Your task to perform on an android device: Search for "usb-c to usb-b" on bestbuy, select the first entry, and add it to the cart. Image 0: 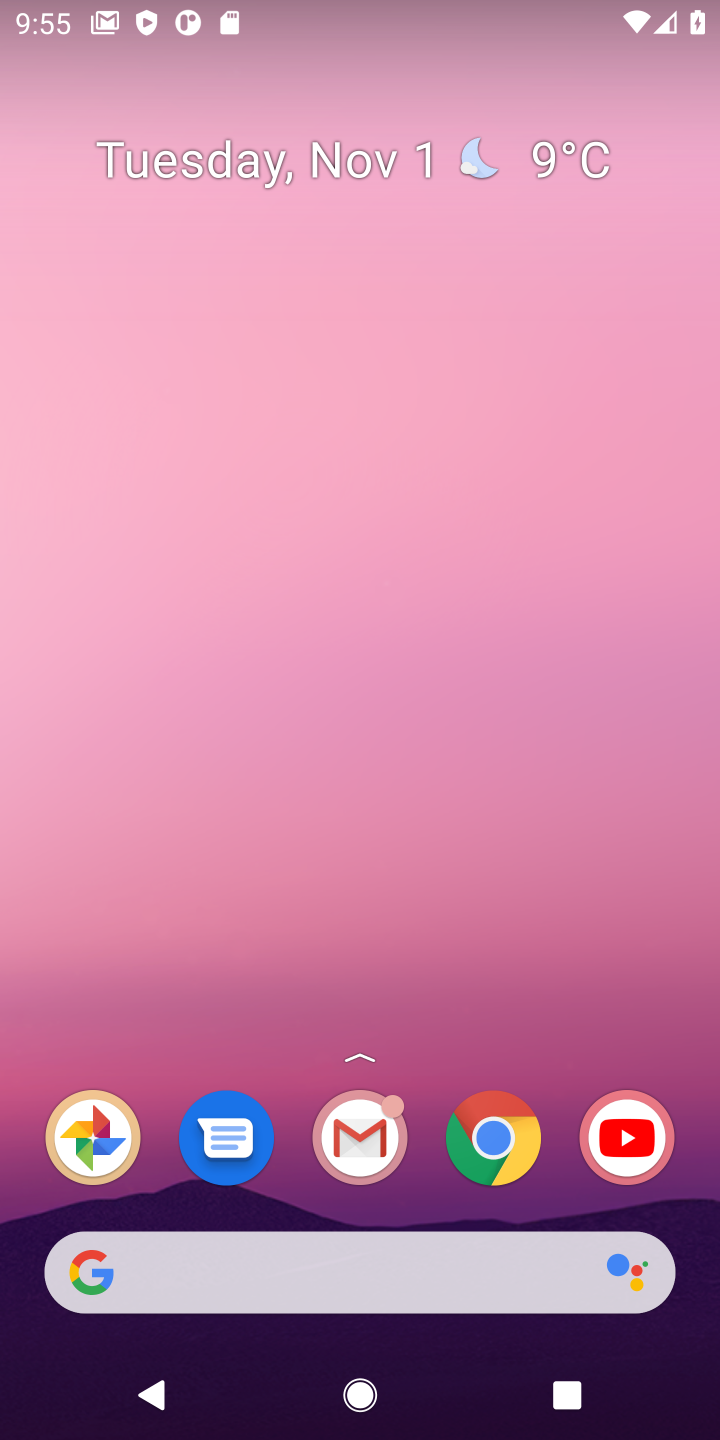
Step 0: click (487, 1111)
Your task to perform on an android device: Search for "usb-c to usb-b" on bestbuy, select the first entry, and add it to the cart. Image 1: 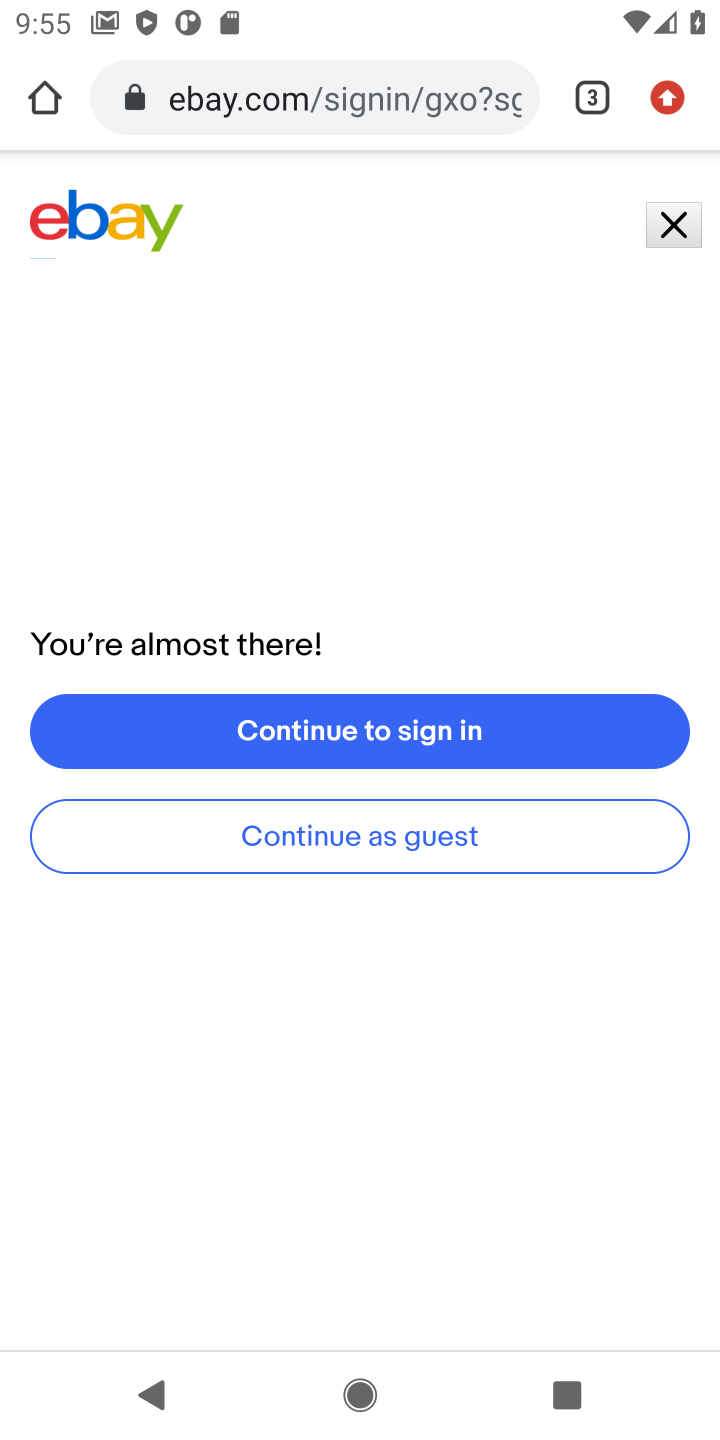
Step 1: click (589, 101)
Your task to perform on an android device: Search for "usb-c to usb-b" on bestbuy, select the first entry, and add it to the cart. Image 2: 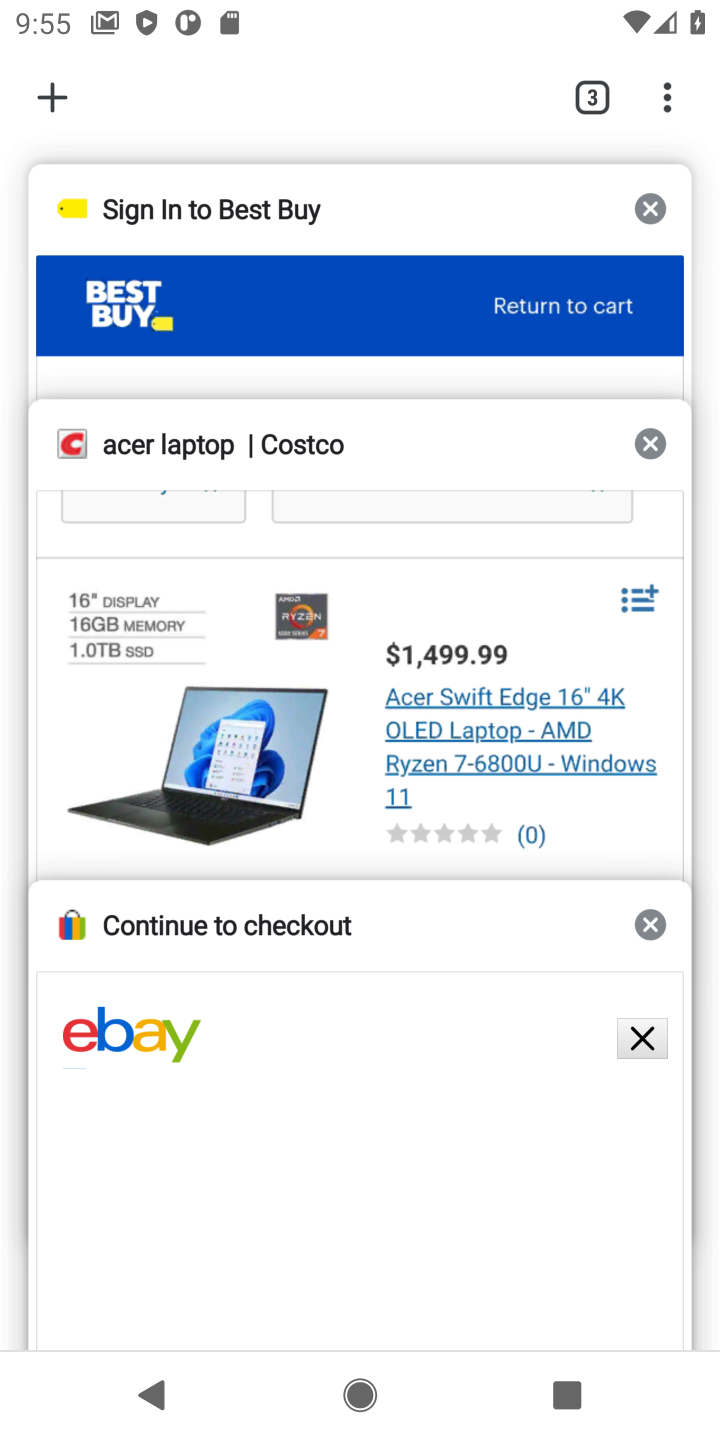
Step 2: click (452, 299)
Your task to perform on an android device: Search for "usb-c to usb-b" on bestbuy, select the first entry, and add it to the cart. Image 3: 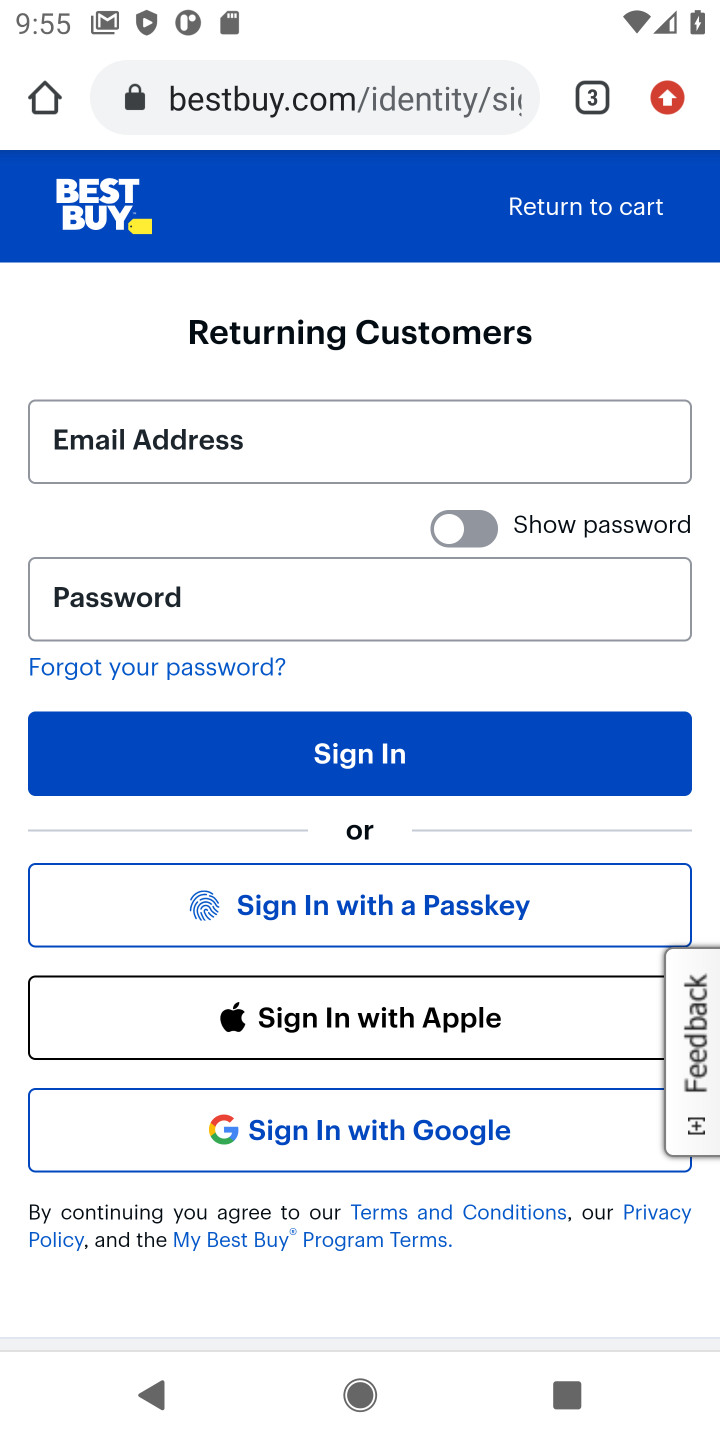
Step 3: click (556, 211)
Your task to perform on an android device: Search for "usb-c to usb-b" on bestbuy, select the first entry, and add it to the cart. Image 4: 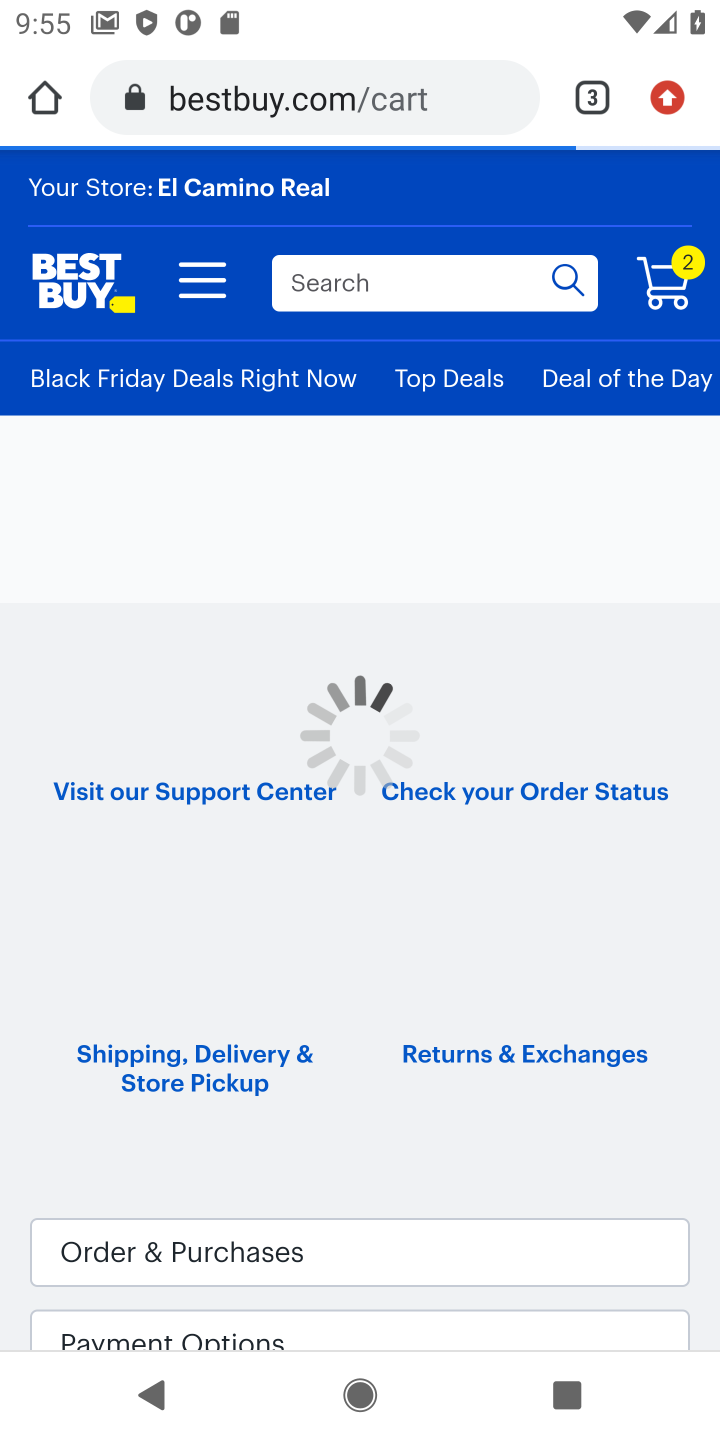
Step 4: click (387, 295)
Your task to perform on an android device: Search for "usb-c to usb-b" on bestbuy, select the first entry, and add it to the cart. Image 5: 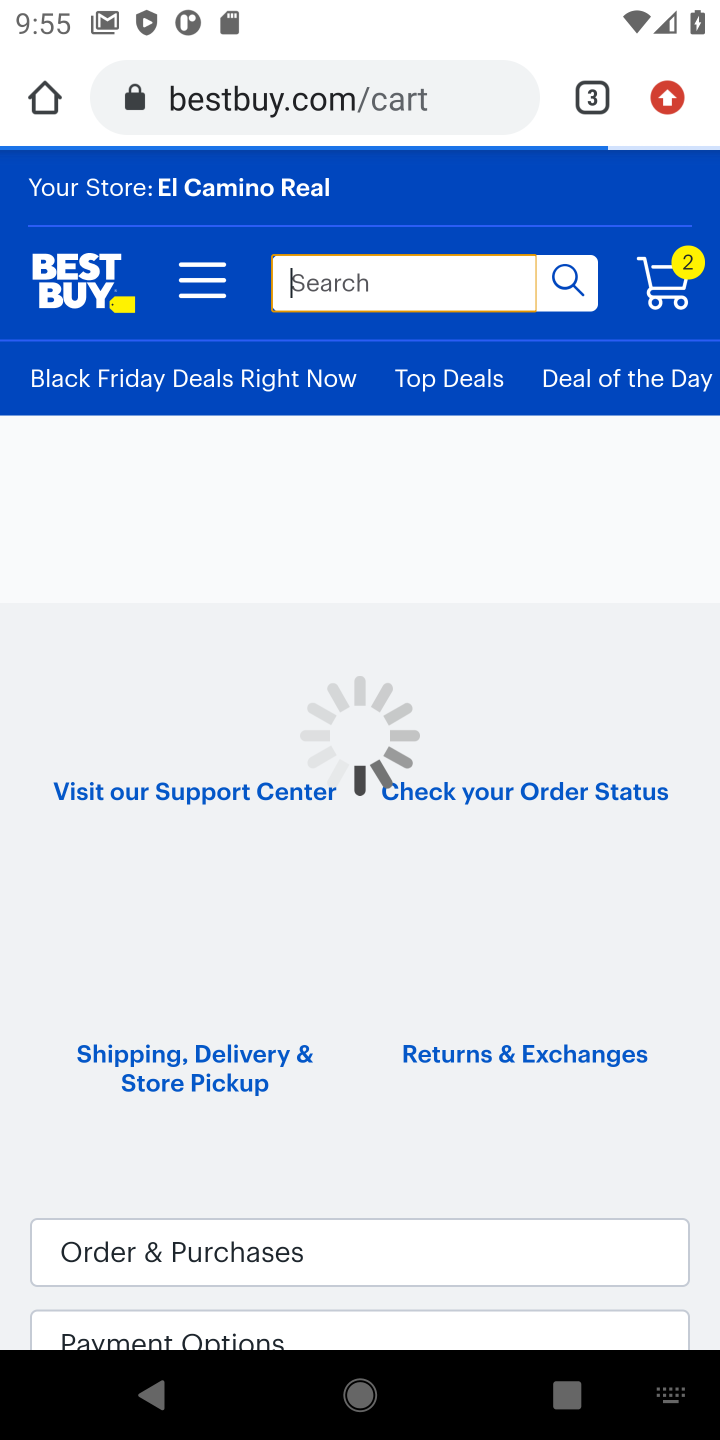
Step 5: type "usb-c to usb-b"
Your task to perform on an android device: Search for "usb-c to usb-b" on bestbuy, select the first entry, and add it to the cart. Image 6: 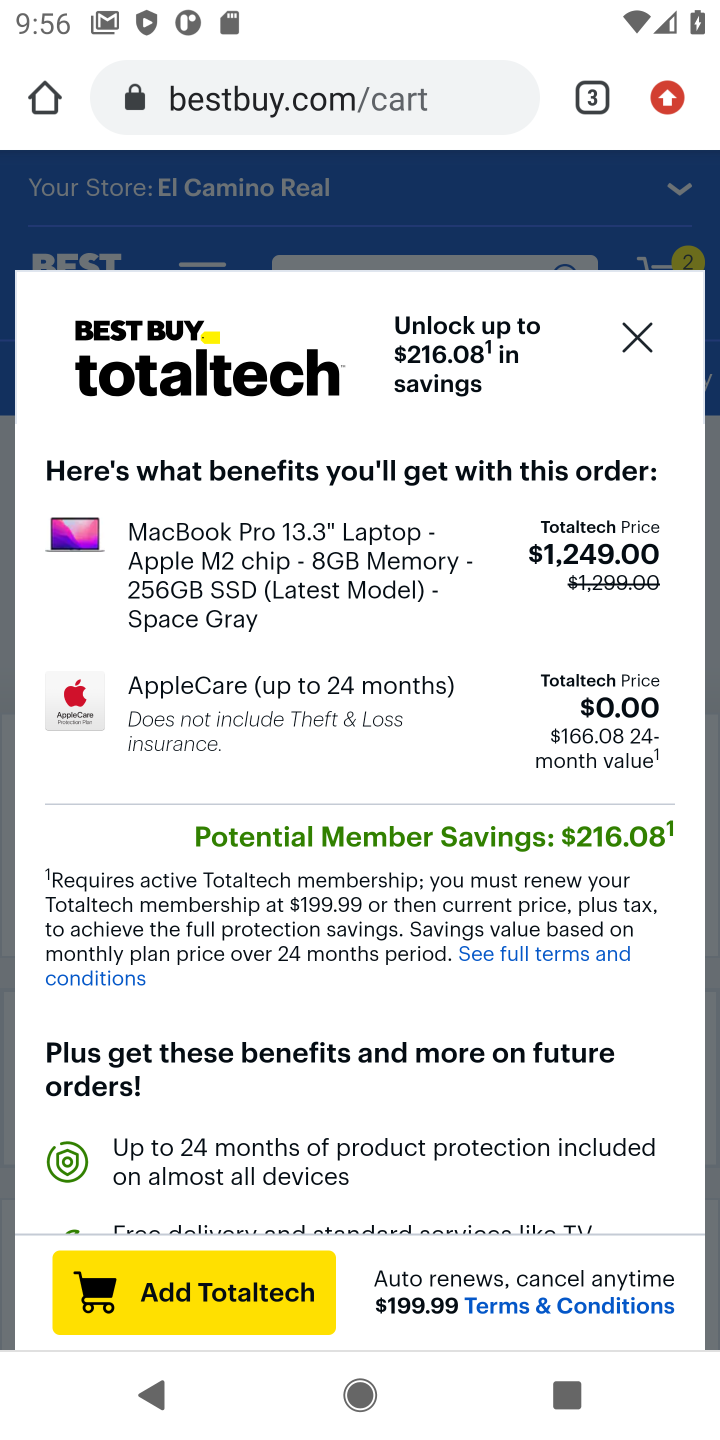
Step 6: click (643, 325)
Your task to perform on an android device: Search for "usb-c to usb-b" on bestbuy, select the first entry, and add it to the cart. Image 7: 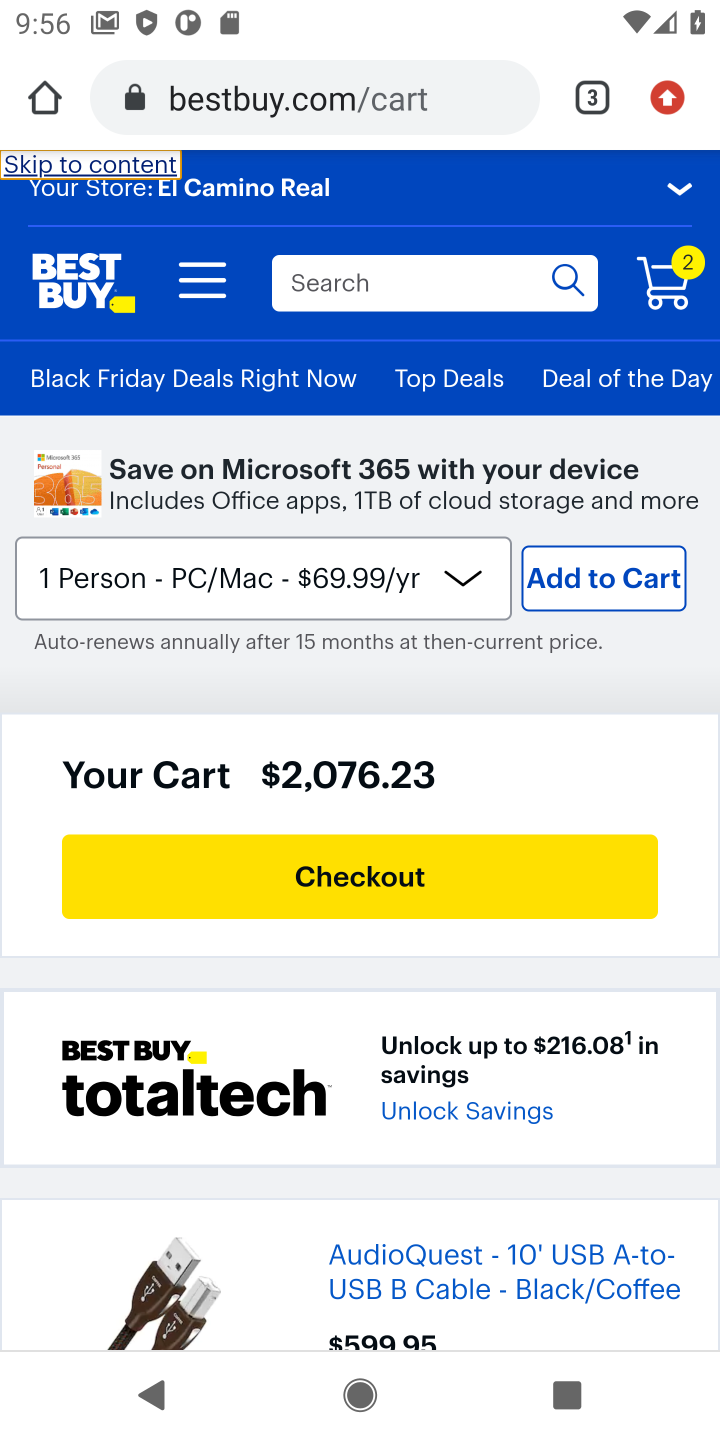
Step 7: drag from (407, 1222) to (379, 560)
Your task to perform on an android device: Search for "usb-c to usb-b" on bestbuy, select the first entry, and add it to the cart. Image 8: 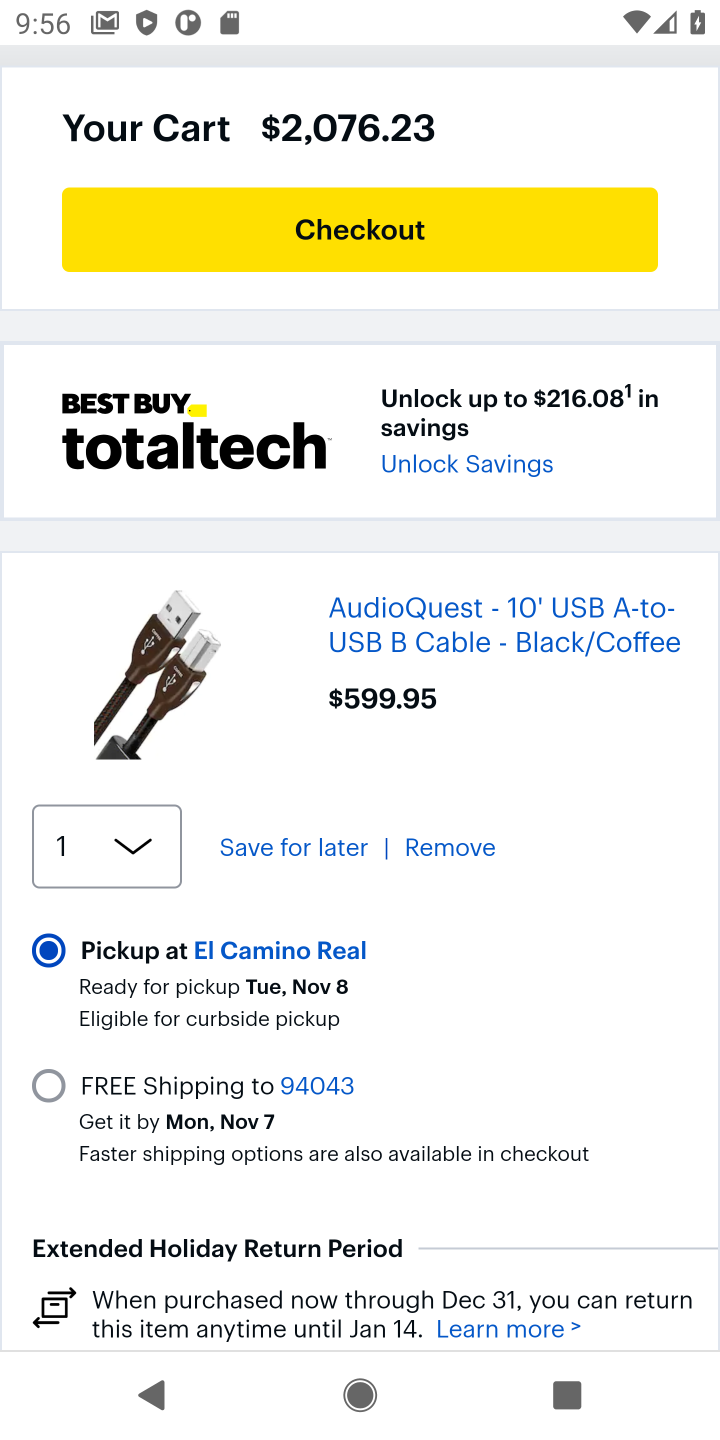
Step 8: drag from (422, 947) to (485, 429)
Your task to perform on an android device: Search for "usb-c to usb-b" on bestbuy, select the first entry, and add it to the cart. Image 9: 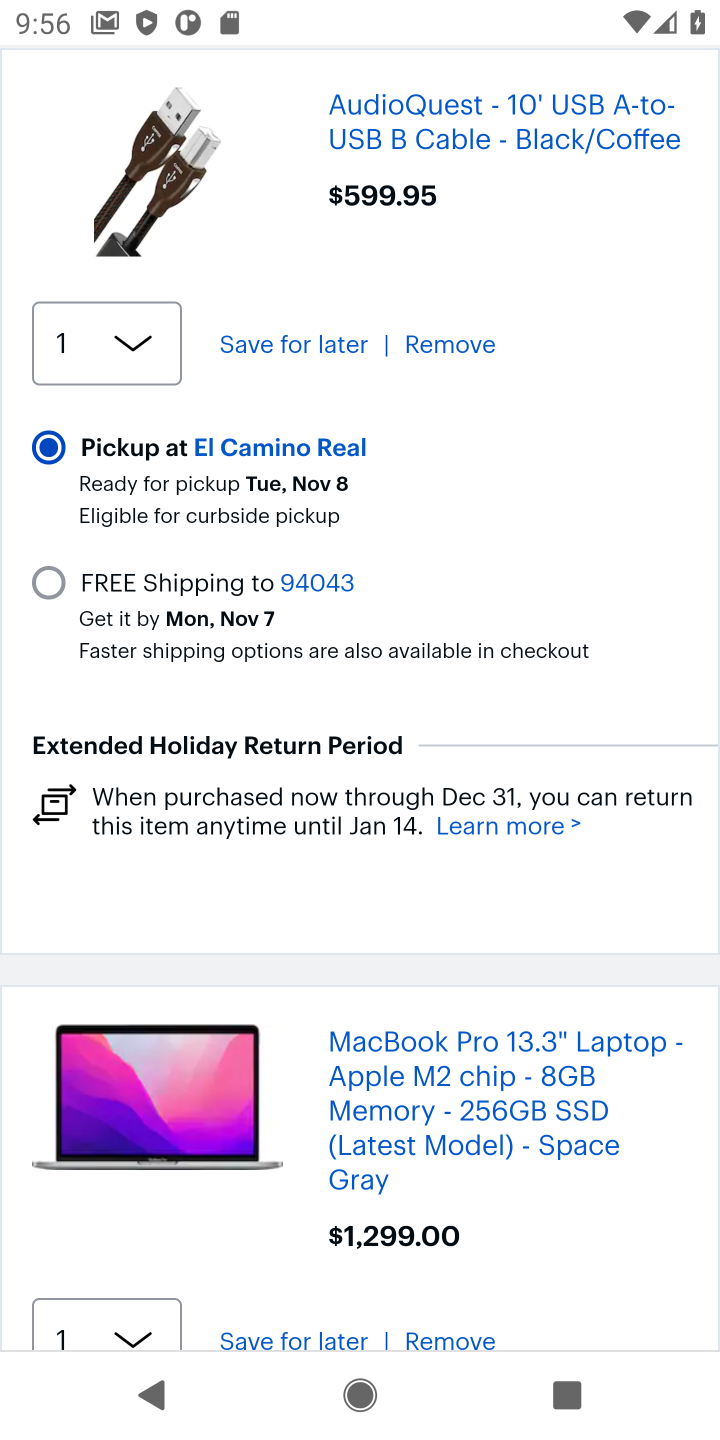
Step 9: drag from (475, 425) to (555, 1300)
Your task to perform on an android device: Search for "usb-c to usb-b" on bestbuy, select the first entry, and add it to the cart. Image 10: 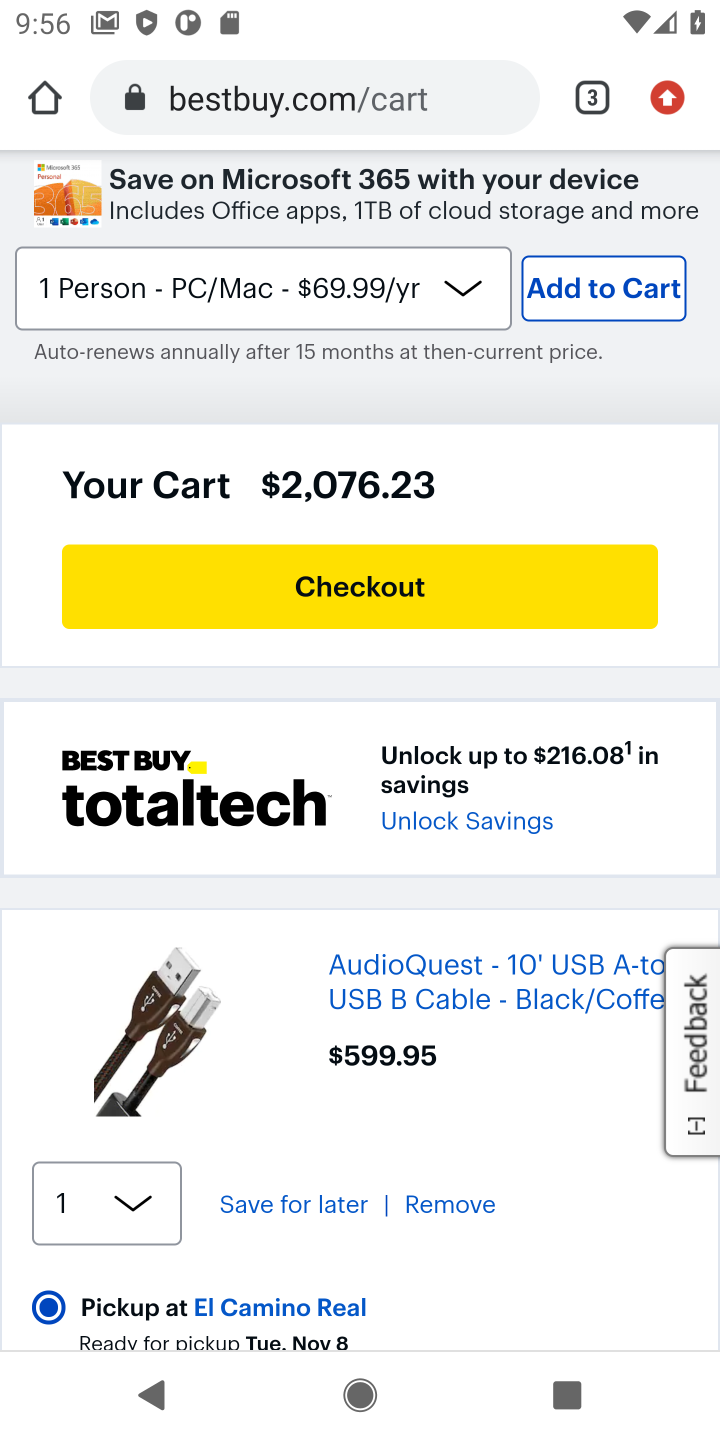
Step 10: drag from (310, 171) to (335, 793)
Your task to perform on an android device: Search for "usb-c to usb-b" on bestbuy, select the first entry, and add it to the cart. Image 11: 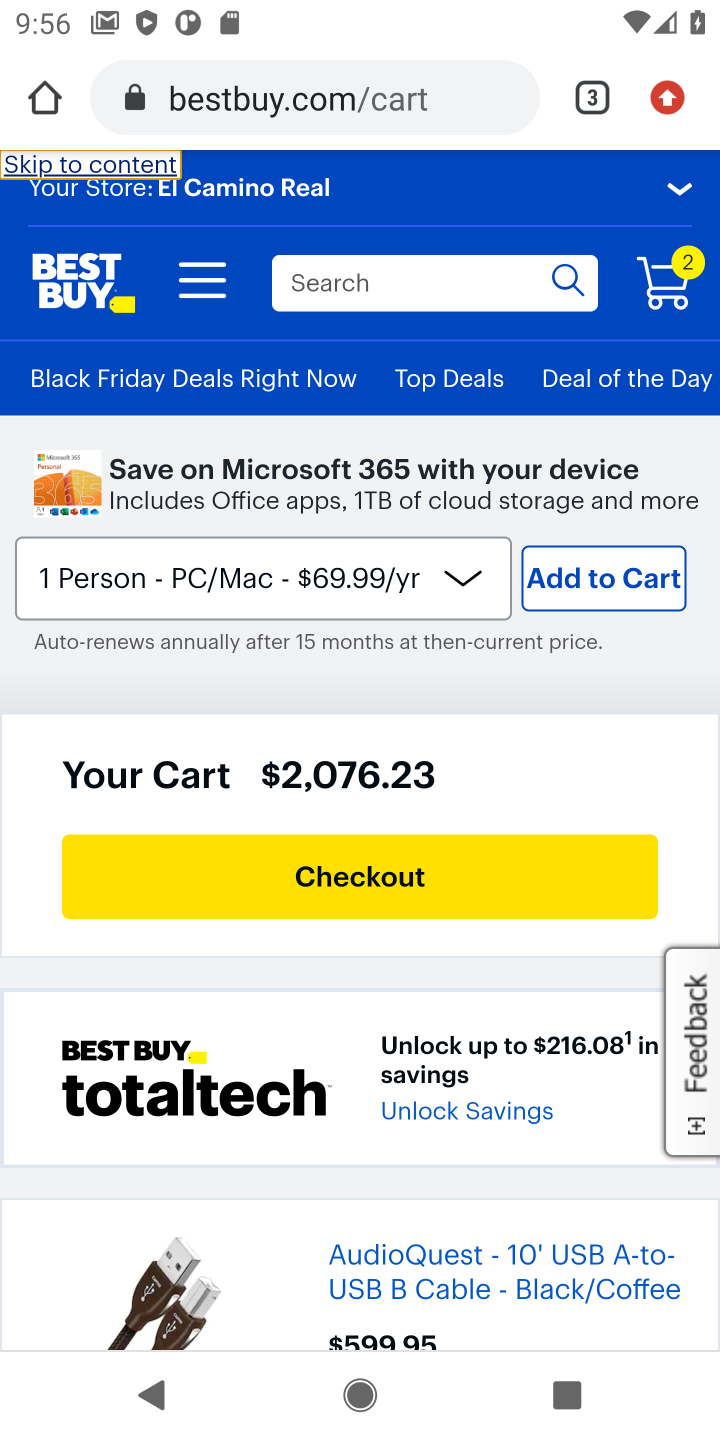
Step 11: click (313, 291)
Your task to perform on an android device: Search for "usb-c to usb-b" on bestbuy, select the first entry, and add it to the cart. Image 12: 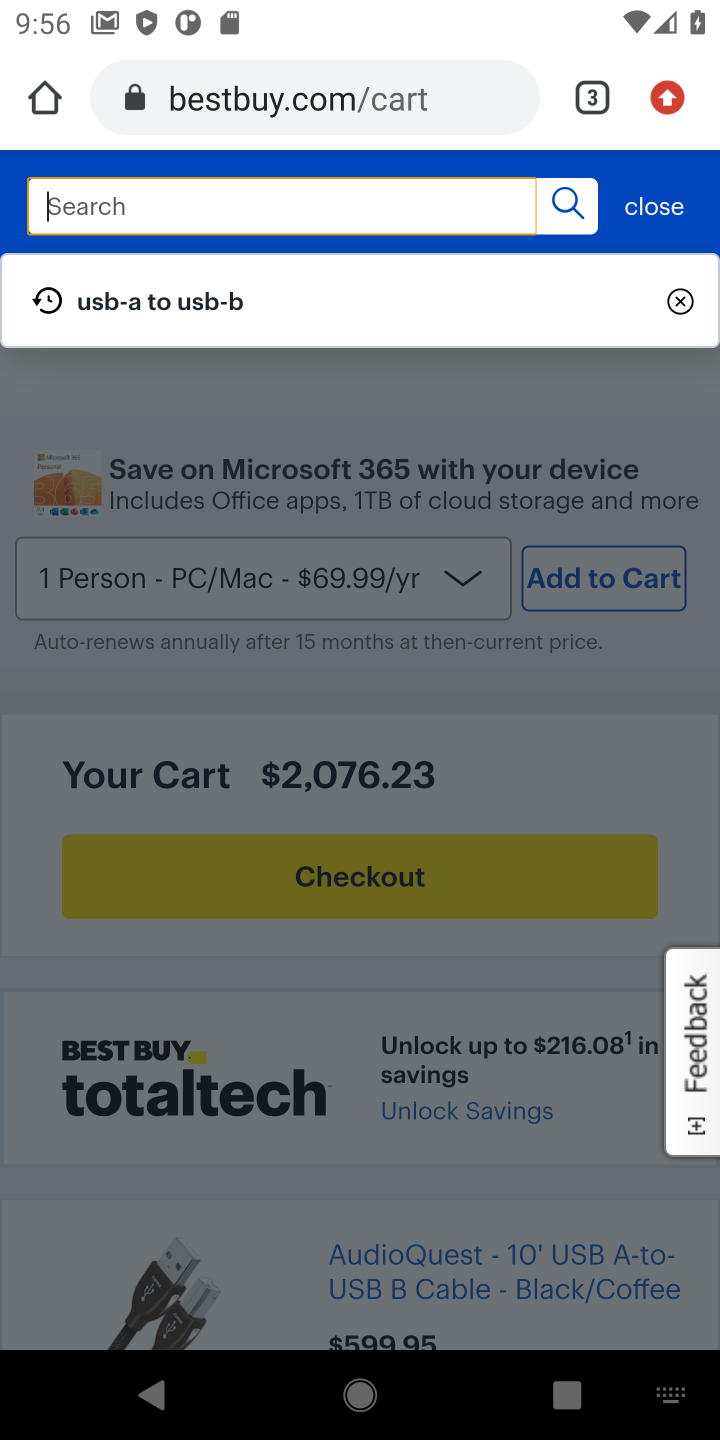
Step 12: type "usb-c to usb-b"
Your task to perform on an android device: Search for "usb-c to usb-b" on bestbuy, select the first entry, and add it to the cart. Image 13: 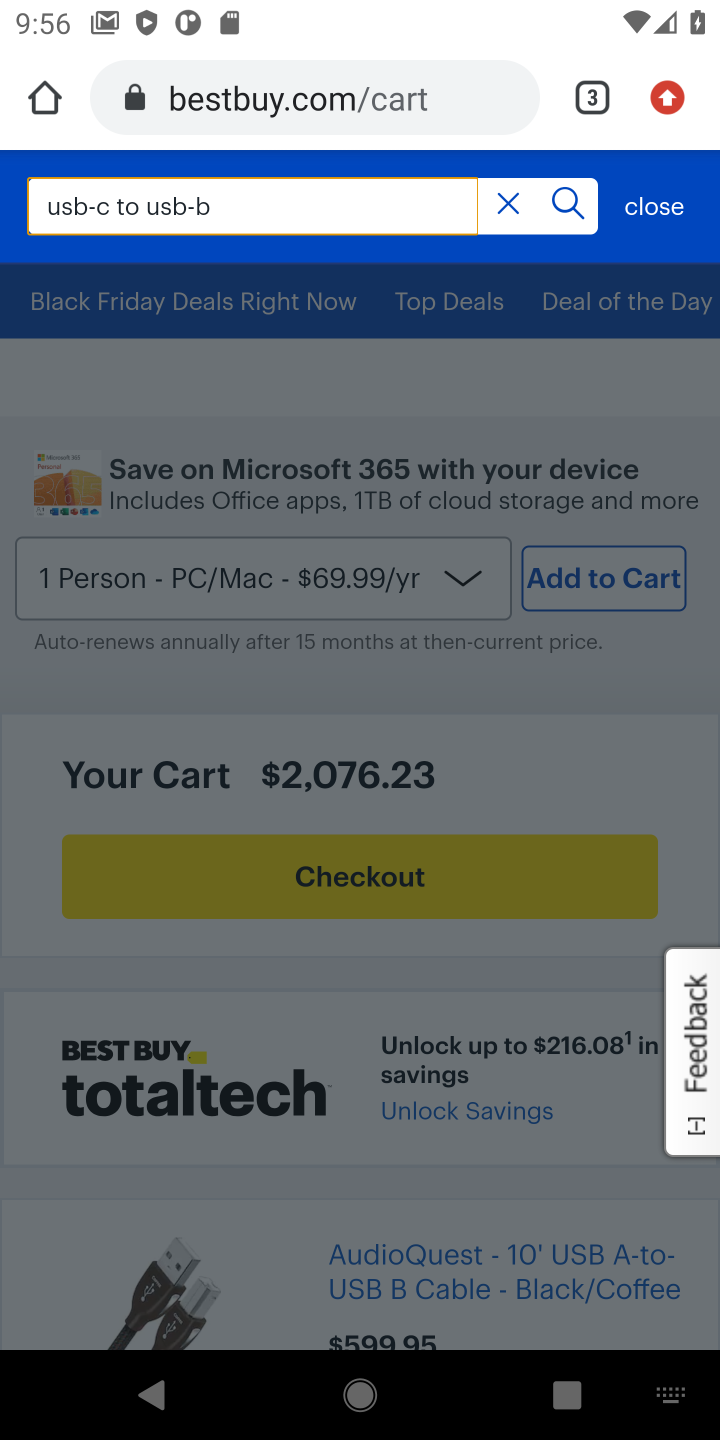
Step 13: click (563, 200)
Your task to perform on an android device: Search for "usb-c to usb-b" on bestbuy, select the first entry, and add it to the cart. Image 14: 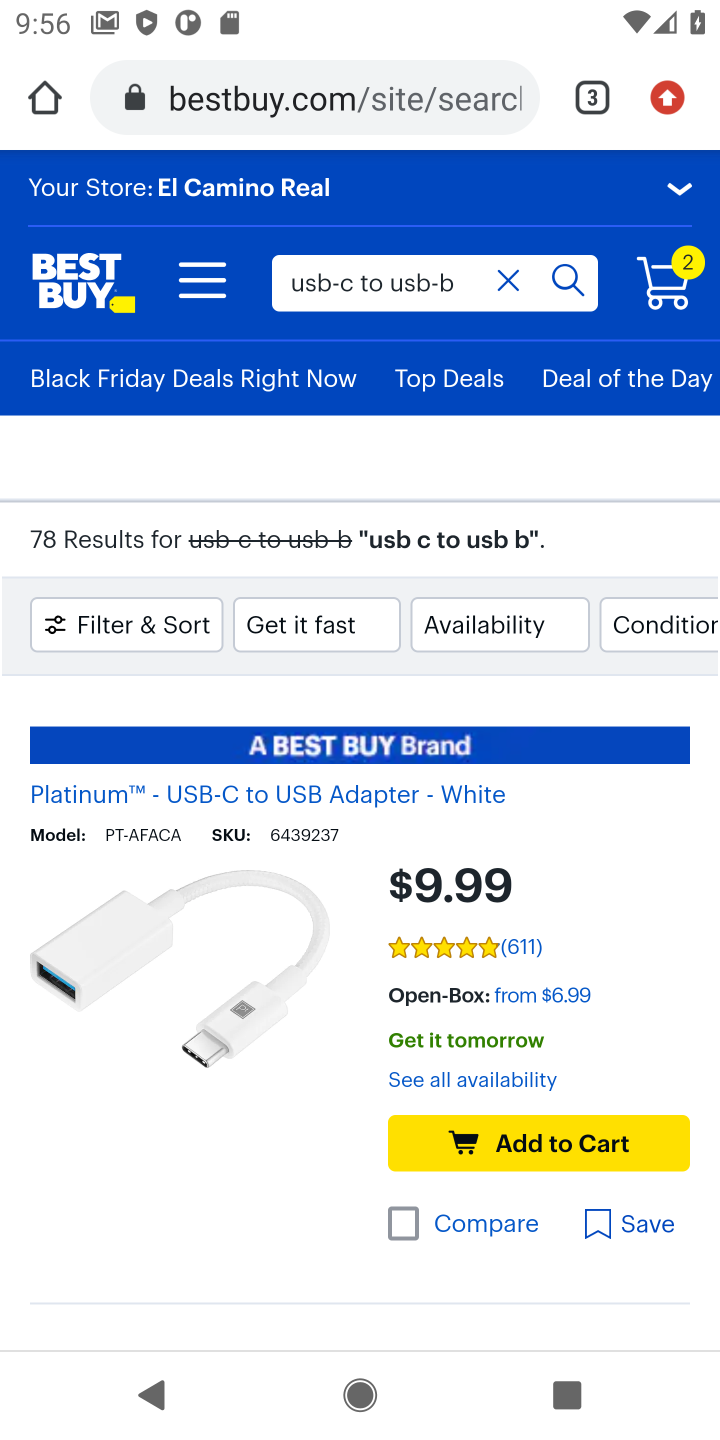
Step 14: click (567, 1135)
Your task to perform on an android device: Search for "usb-c to usb-b" on bestbuy, select the first entry, and add it to the cart. Image 15: 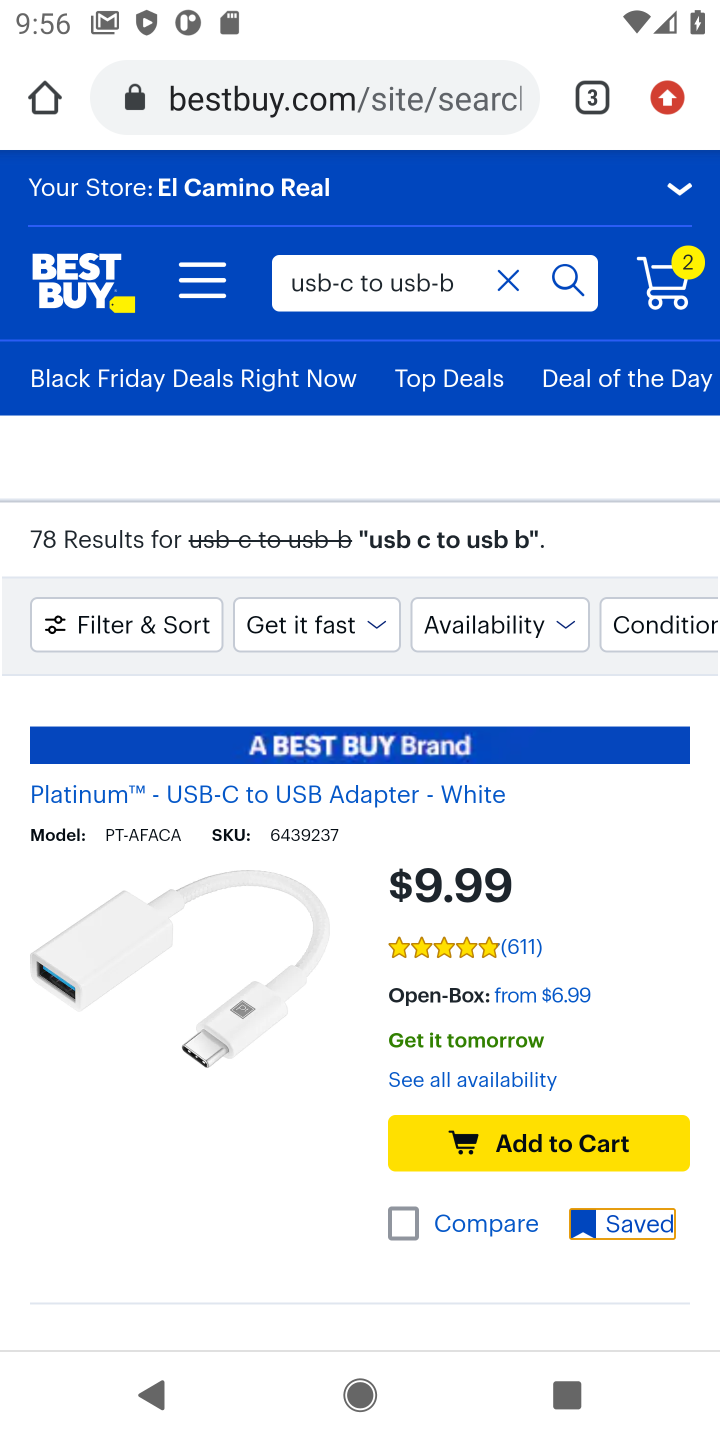
Step 15: click (584, 1150)
Your task to perform on an android device: Search for "usb-c to usb-b" on bestbuy, select the first entry, and add it to the cart. Image 16: 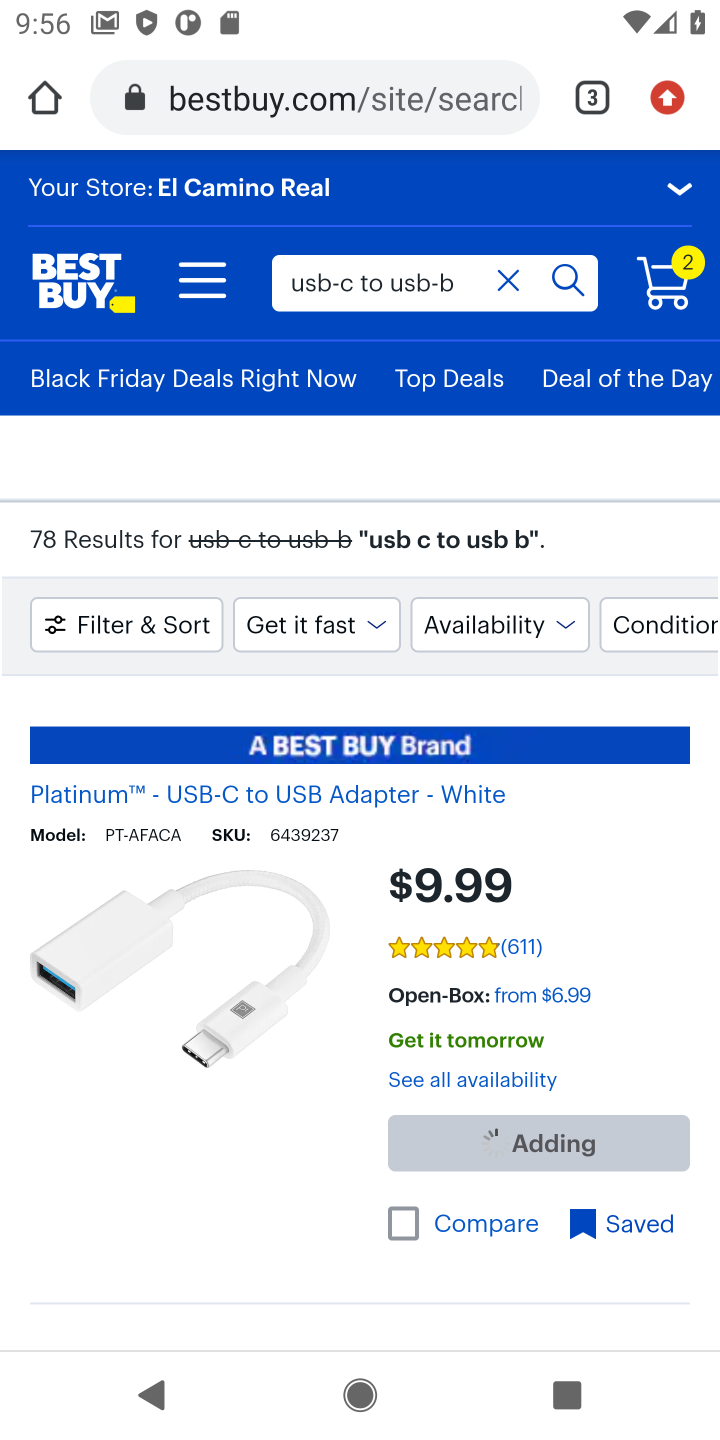
Step 16: task complete